Your task to perform on an android device: toggle pop-ups in chrome Image 0: 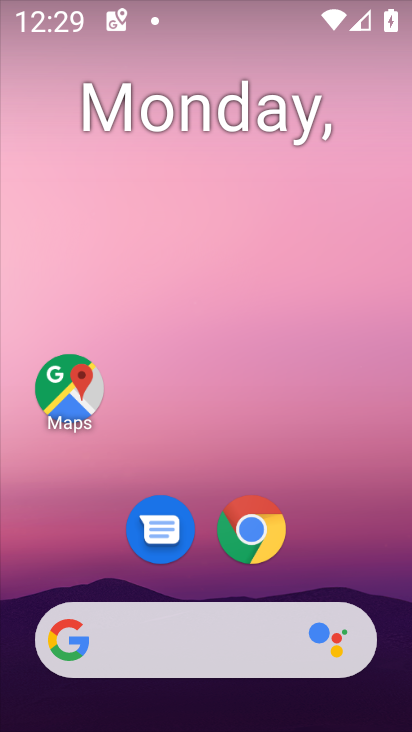
Step 0: click (260, 546)
Your task to perform on an android device: toggle pop-ups in chrome Image 1: 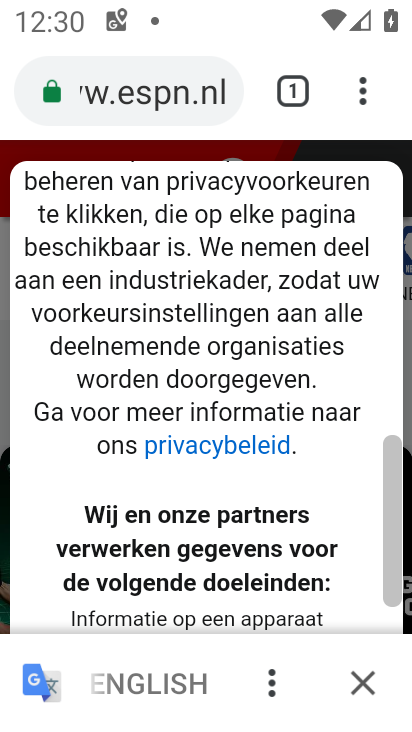
Step 1: drag from (367, 96) to (116, 563)
Your task to perform on an android device: toggle pop-ups in chrome Image 2: 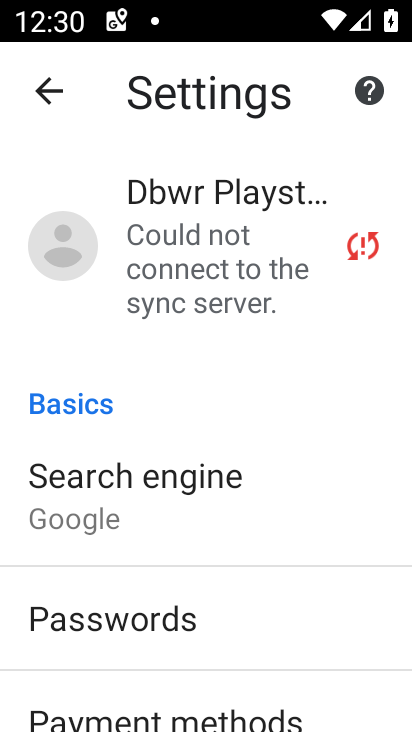
Step 2: drag from (126, 704) to (85, 438)
Your task to perform on an android device: toggle pop-ups in chrome Image 3: 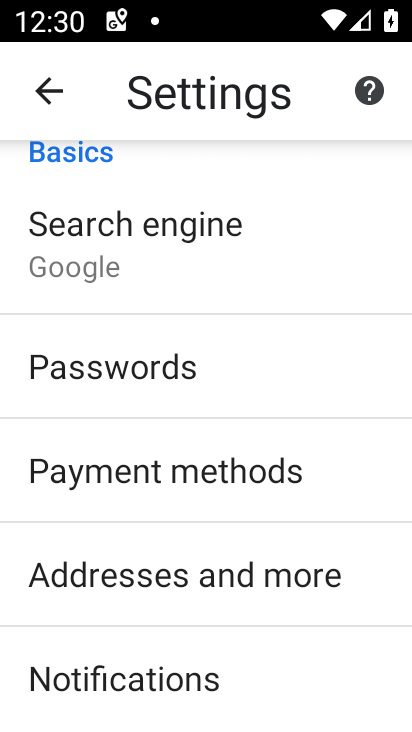
Step 3: drag from (109, 564) to (96, 70)
Your task to perform on an android device: toggle pop-ups in chrome Image 4: 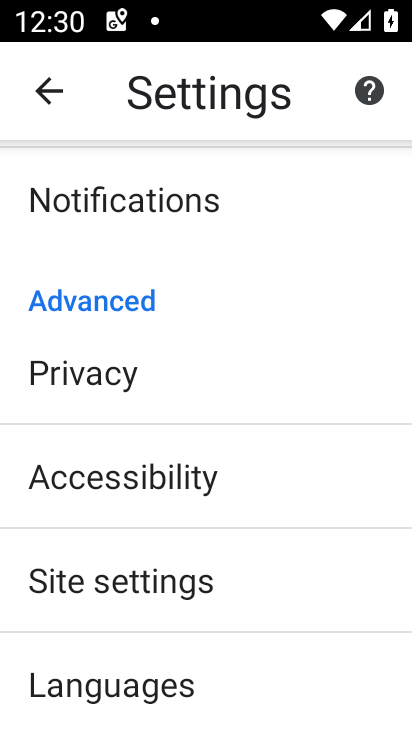
Step 4: click (180, 601)
Your task to perform on an android device: toggle pop-ups in chrome Image 5: 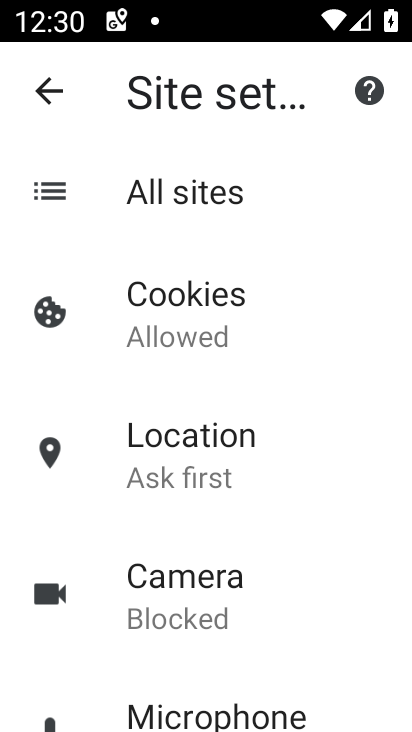
Step 5: drag from (191, 600) to (170, 37)
Your task to perform on an android device: toggle pop-ups in chrome Image 6: 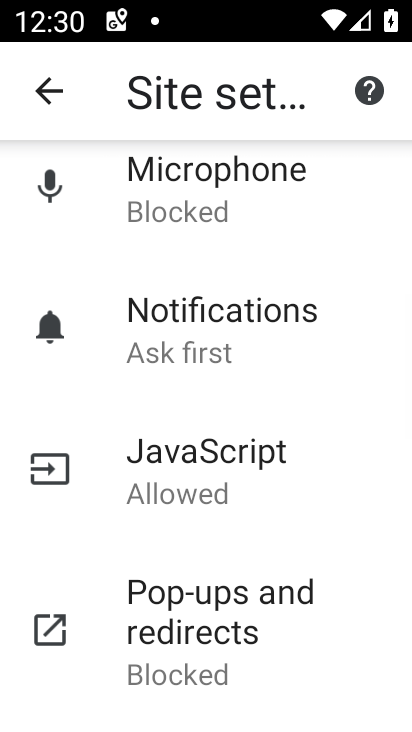
Step 6: click (267, 623)
Your task to perform on an android device: toggle pop-ups in chrome Image 7: 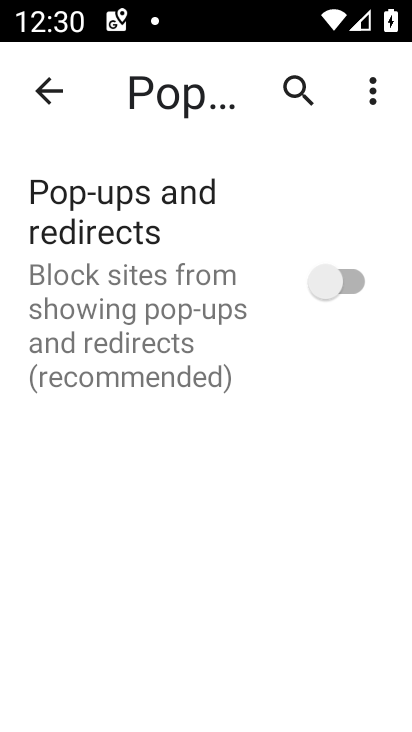
Step 7: click (339, 284)
Your task to perform on an android device: toggle pop-ups in chrome Image 8: 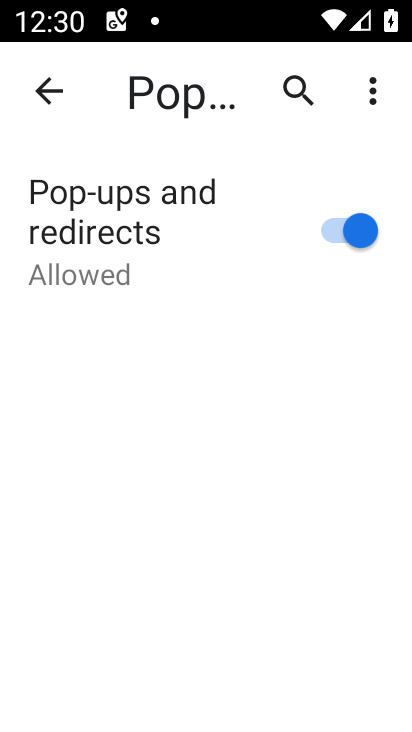
Step 8: task complete